Your task to perform on an android device: Search for seafood restaurants on Google Maps Image 0: 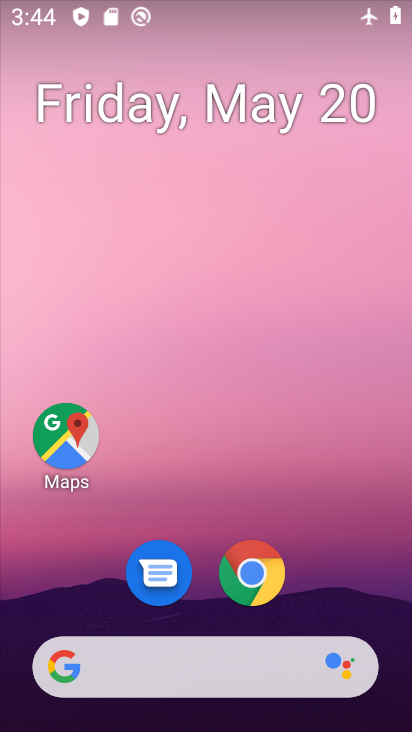
Step 0: click (80, 423)
Your task to perform on an android device: Search for seafood restaurants on Google Maps Image 1: 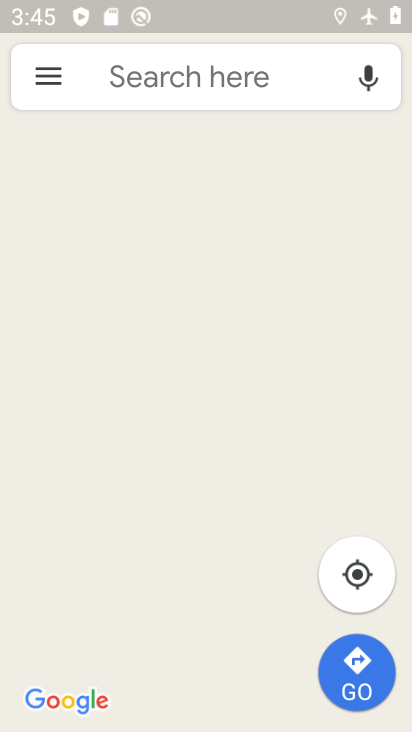
Step 1: click (220, 70)
Your task to perform on an android device: Search for seafood restaurants on Google Maps Image 2: 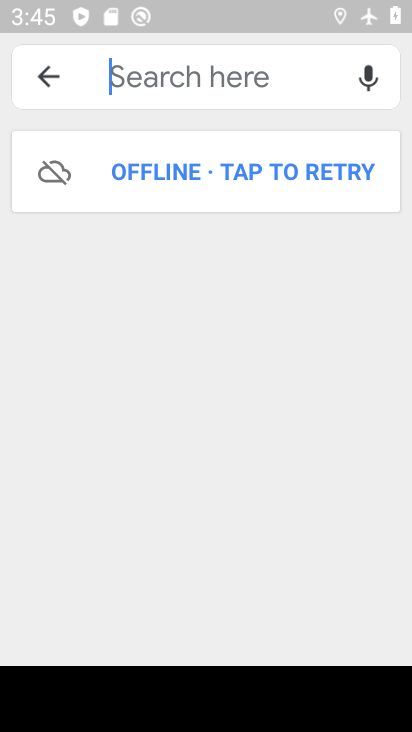
Step 2: type "seafood restaurants"
Your task to perform on an android device: Search for seafood restaurants on Google Maps Image 3: 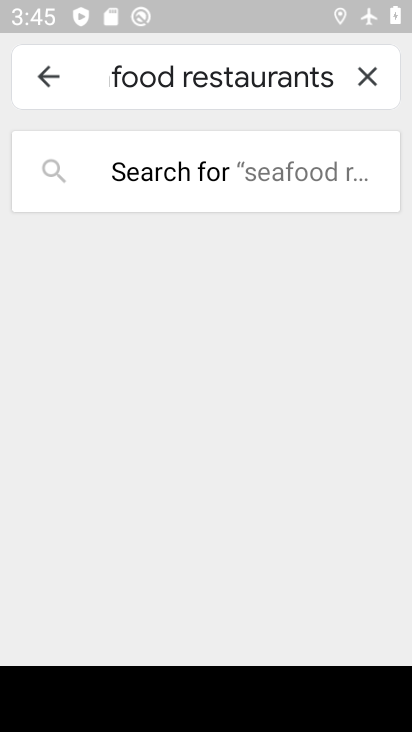
Step 3: click (346, 187)
Your task to perform on an android device: Search for seafood restaurants on Google Maps Image 4: 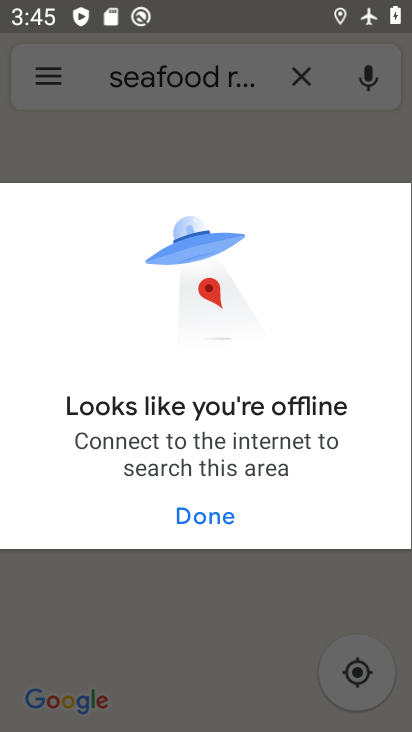
Step 4: task complete